Your task to perform on an android device: Go to calendar. Show me events next week Image 0: 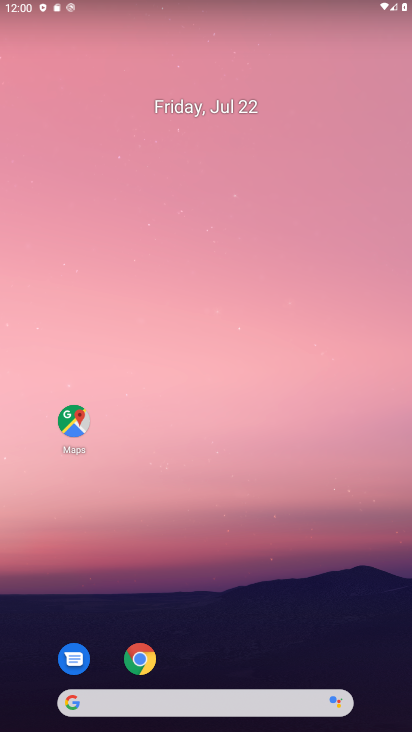
Step 0: drag from (250, 642) to (254, 17)
Your task to perform on an android device: Go to calendar. Show me events next week Image 1: 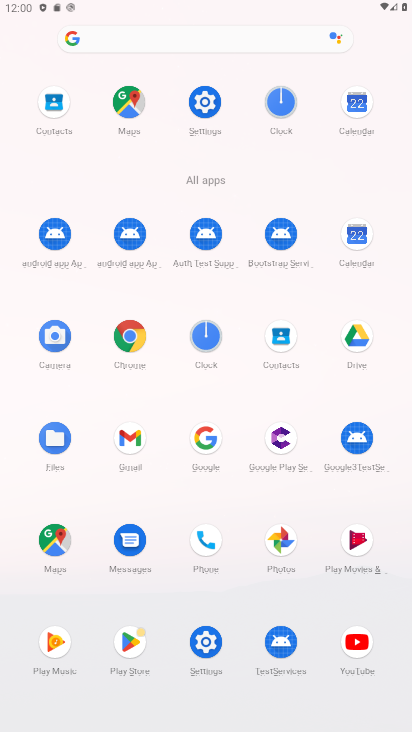
Step 1: click (369, 105)
Your task to perform on an android device: Go to calendar. Show me events next week Image 2: 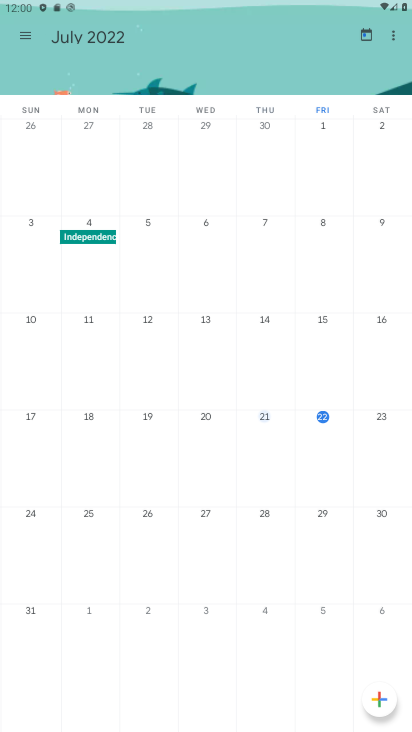
Step 2: task complete